Your task to perform on an android device: Open Google Maps Image 0: 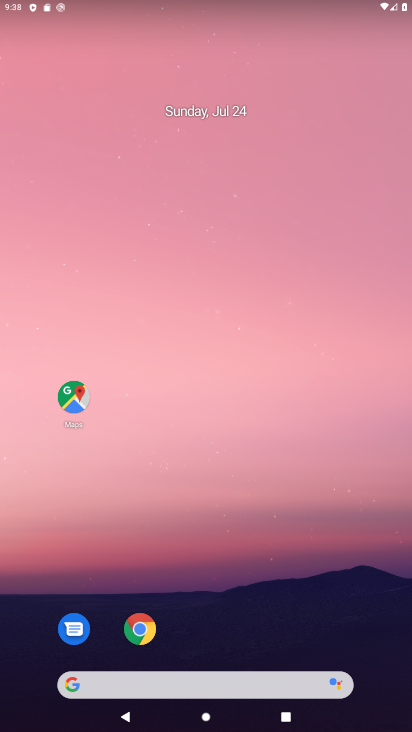
Step 0: click (73, 401)
Your task to perform on an android device: Open Google Maps Image 1: 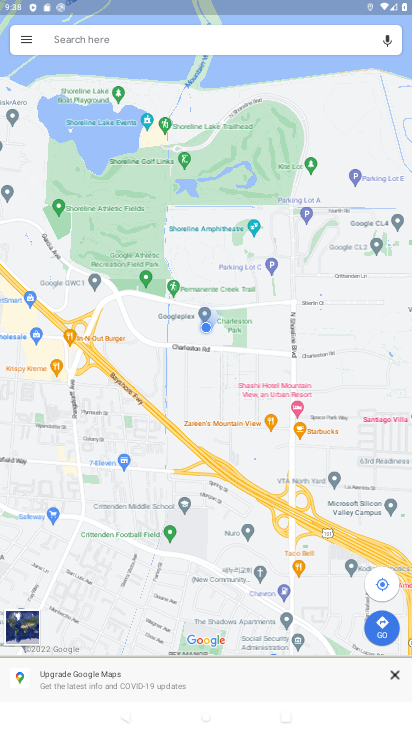
Step 1: task complete